Your task to perform on an android device: open the mobile data screen to see how much data has been used Image 0: 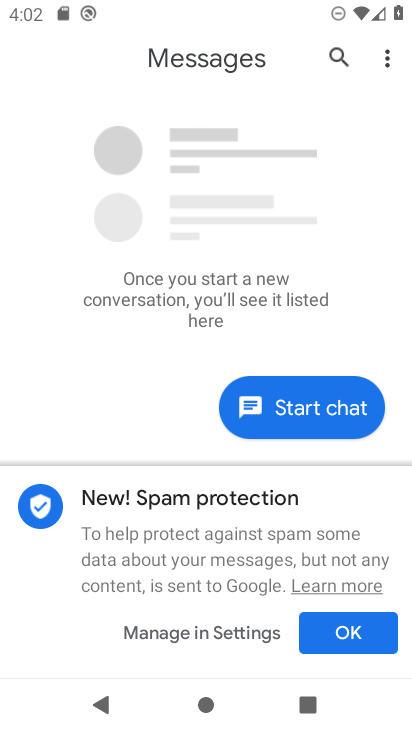
Step 0: press home button
Your task to perform on an android device: open the mobile data screen to see how much data has been used Image 1: 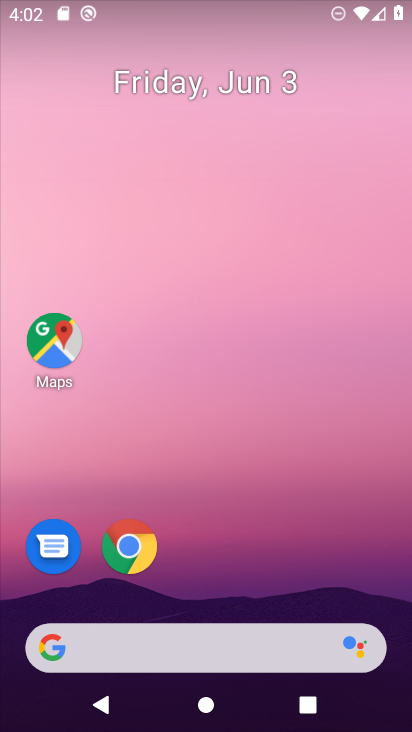
Step 1: drag from (237, 532) to (277, 19)
Your task to perform on an android device: open the mobile data screen to see how much data has been used Image 2: 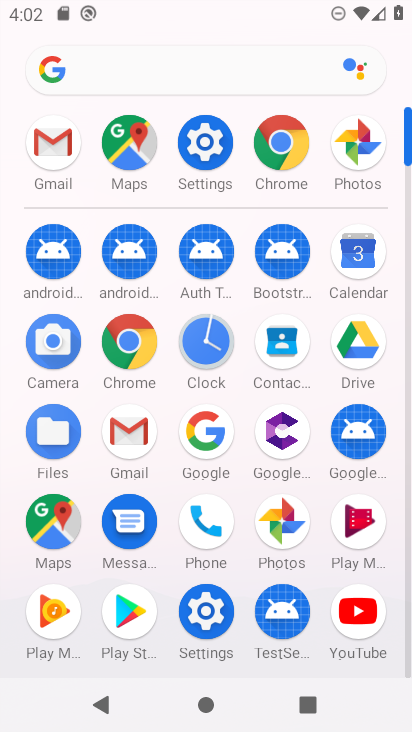
Step 2: click (212, 143)
Your task to perform on an android device: open the mobile data screen to see how much data has been used Image 3: 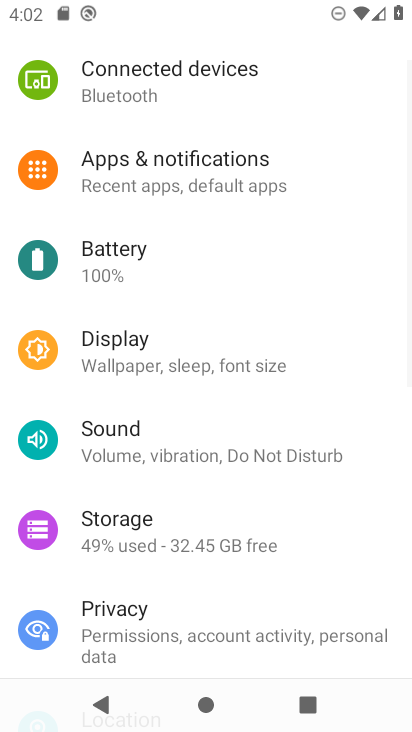
Step 3: drag from (205, 242) to (234, 438)
Your task to perform on an android device: open the mobile data screen to see how much data has been used Image 4: 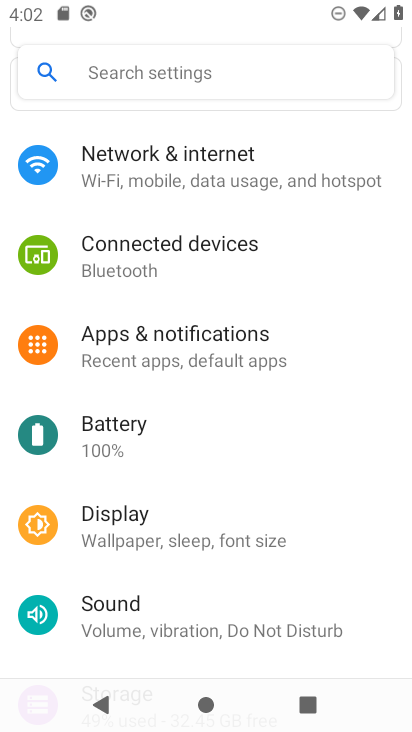
Step 4: click (243, 172)
Your task to perform on an android device: open the mobile data screen to see how much data has been used Image 5: 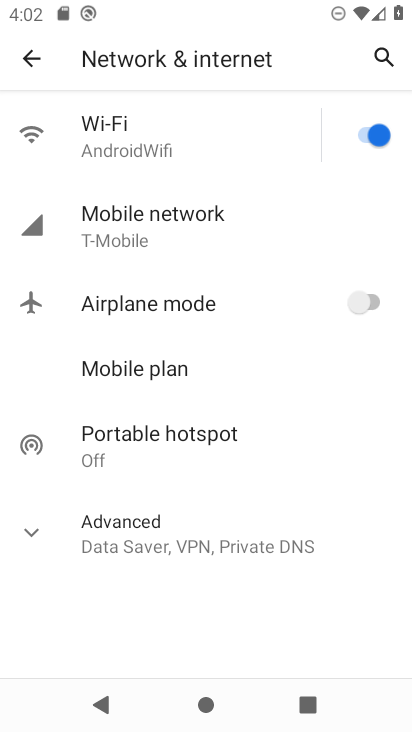
Step 5: click (233, 212)
Your task to perform on an android device: open the mobile data screen to see how much data has been used Image 6: 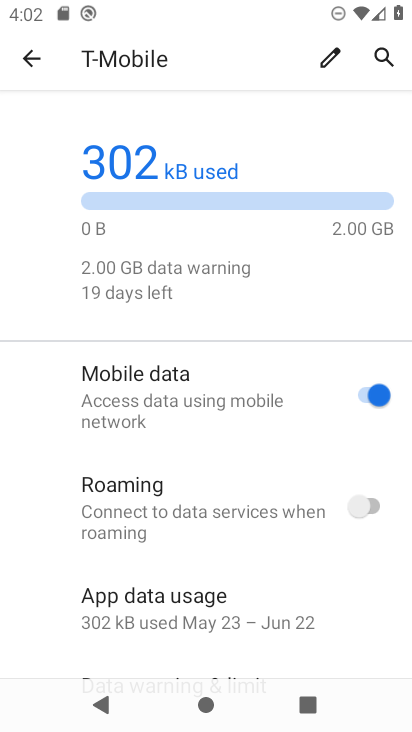
Step 6: task complete